Your task to perform on an android device: What's the weather today? Image 0: 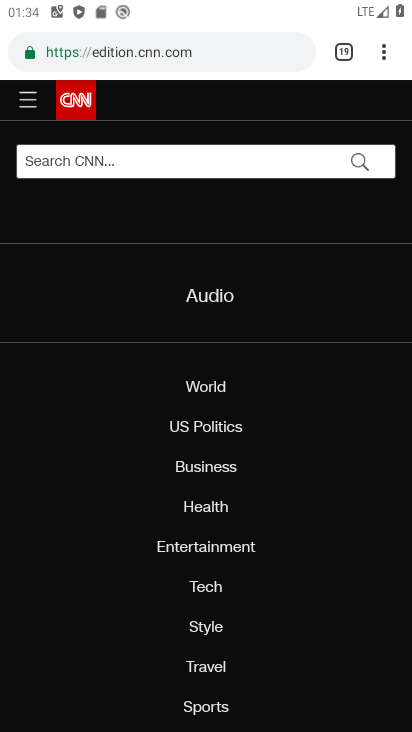
Step 0: press home button
Your task to perform on an android device: What's the weather today? Image 1: 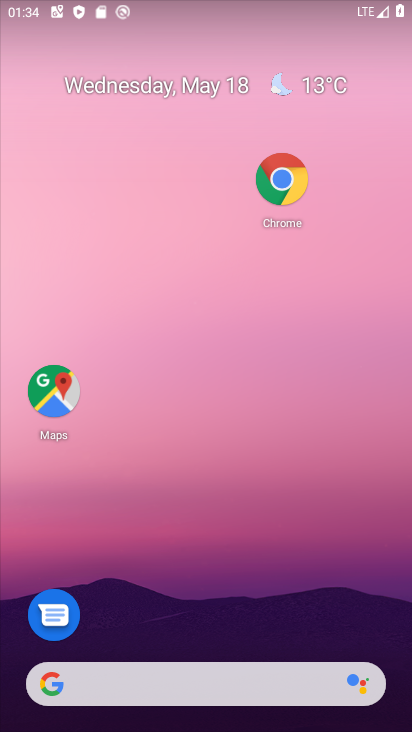
Step 1: click (329, 87)
Your task to perform on an android device: What's the weather today? Image 2: 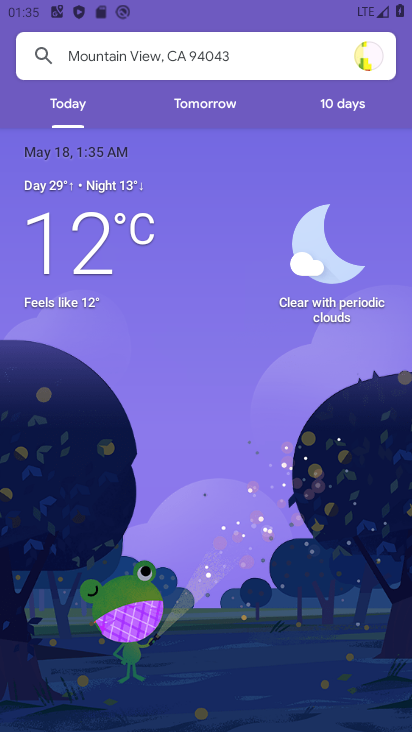
Step 2: task complete